Your task to perform on an android device: turn off location history Image 0: 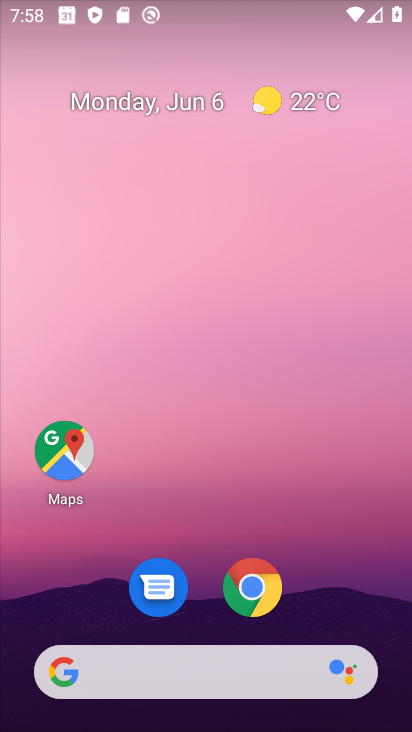
Step 0: drag from (227, 642) to (227, 267)
Your task to perform on an android device: turn off location history Image 1: 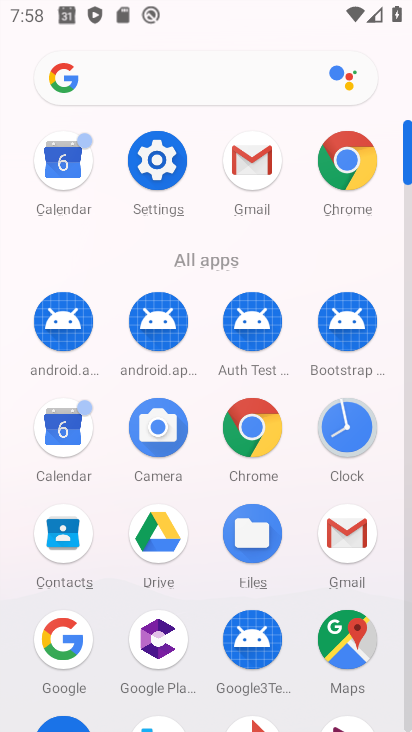
Step 1: click (136, 152)
Your task to perform on an android device: turn off location history Image 2: 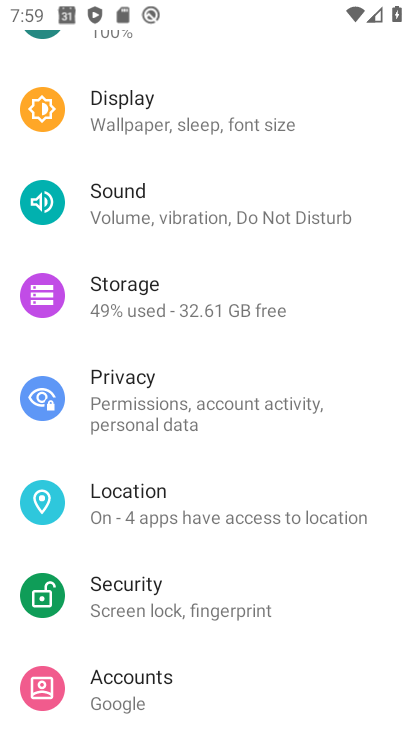
Step 2: click (159, 516)
Your task to perform on an android device: turn off location history Image 3: 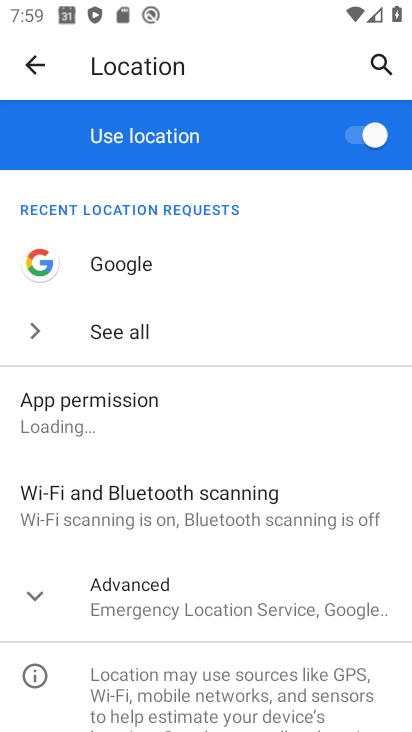
Step 3: click (173, 583)
Your task to perform on an android device: turn off location history Image 4: 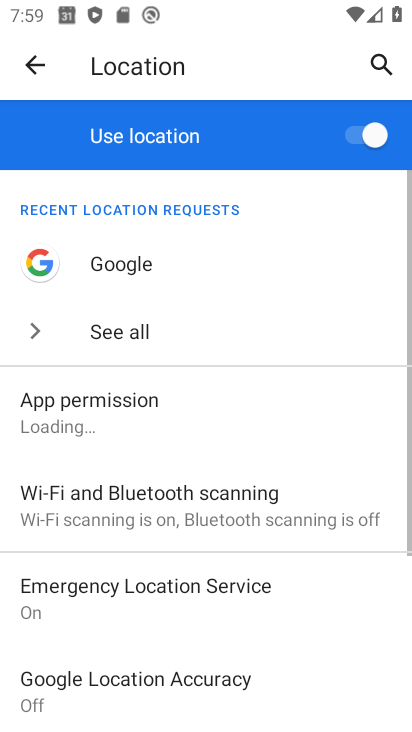
Step 4: drag from (251, 641) to (243, 320)
Your task to perform on an android device: turn off location history Image 5: 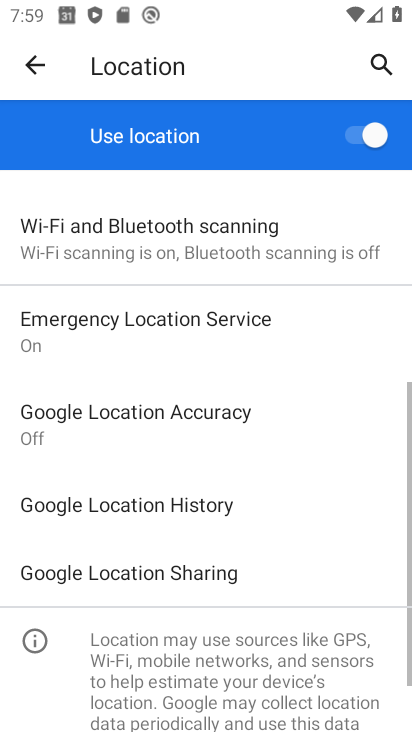
Step 5: click (178, 509)
Your task to perform on an android device: turn off location history Image 6: 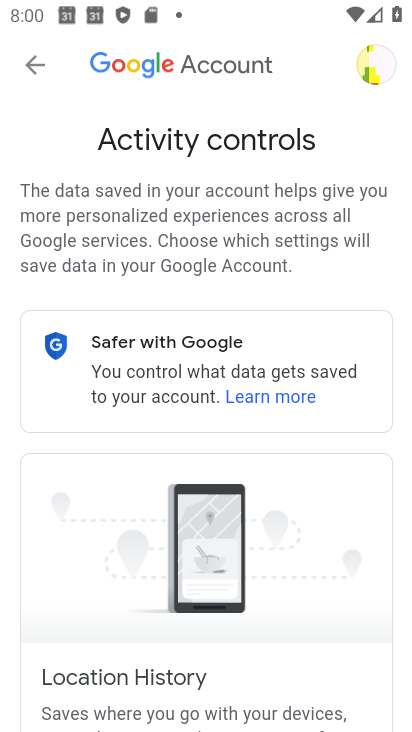
Step 6: task complete